Your task to perform on an android device: See recent photos Image 0: 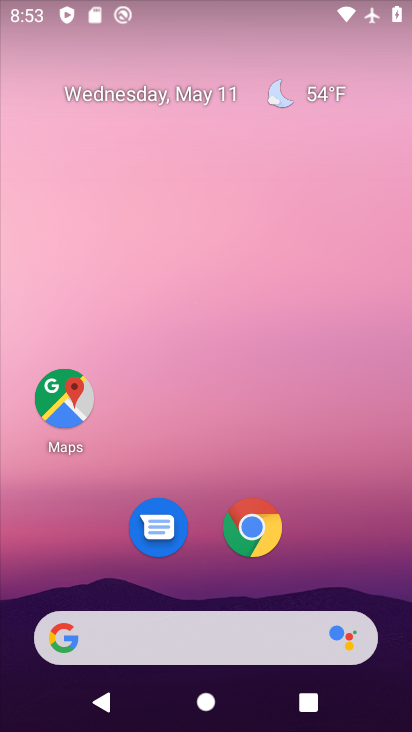
Step 0: drag from (299, 569) to (281, 112)
Your task to perform on an android device: See recent photos Image 1: 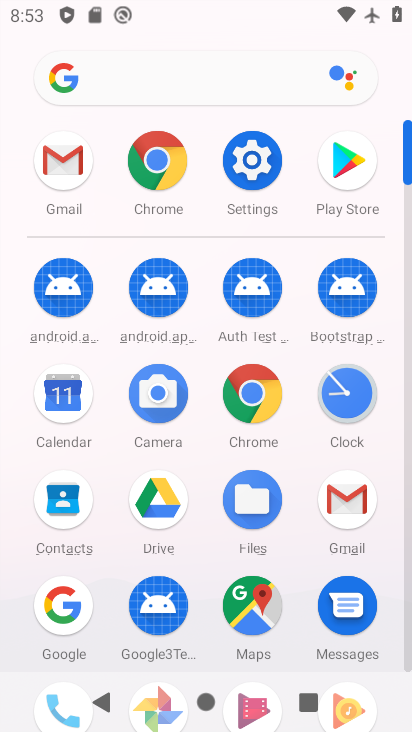
Step 1: drag from (200, 619) to (186, 301)
Your task to perform on an android device: See recent photos Image 2: 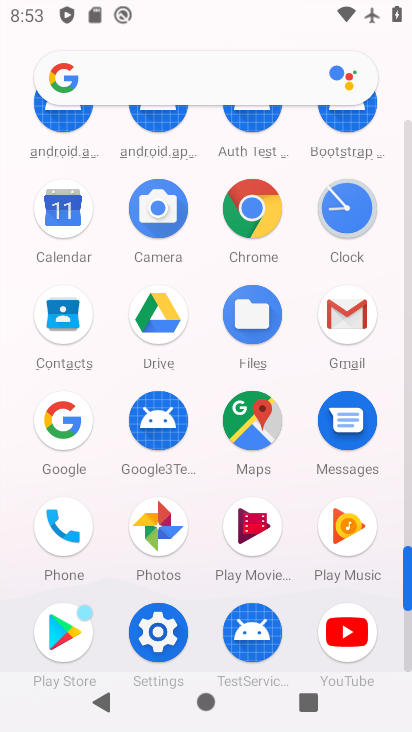
Step 2: click (158, 528)
Your task to perform on an android device: See recent photos Image 3: 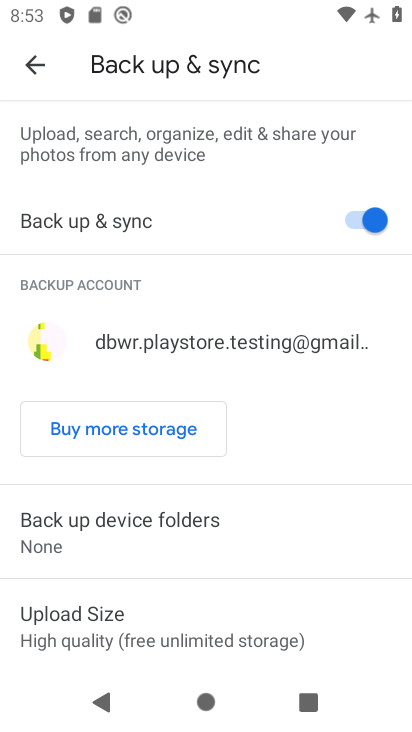
Step 3: task complete